Your task to perform on an android device: change your default location settings in chrome Image 0: 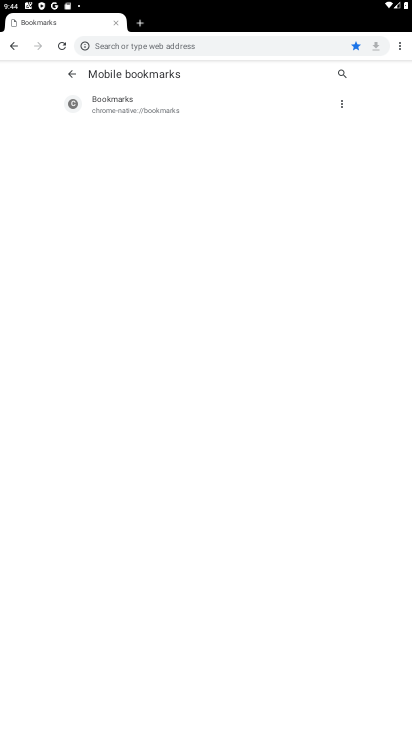
Step 0: press home button
Your task to perform on an android device: change your default location settings in chrome Image 1: 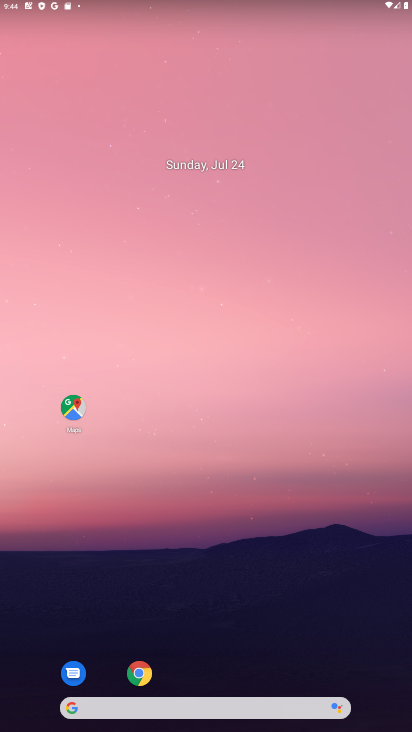
Step 1: click (141, 671)
Your task to perform on an android device: change your default location settings in chrome Image 2: 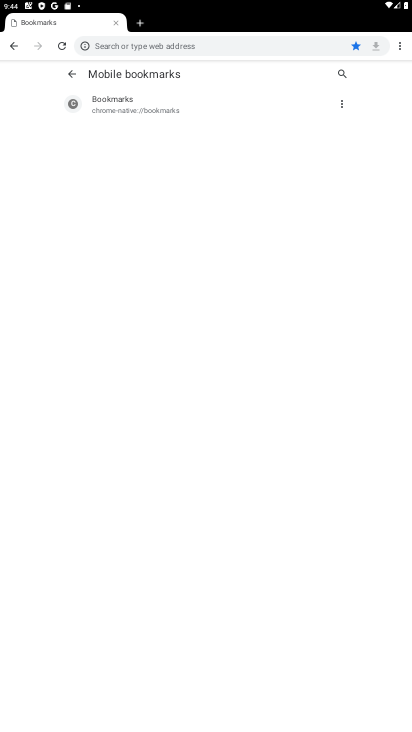
Step 2: press home button
Your task to perform on an android device: change your default location settings in chrome Image 3: 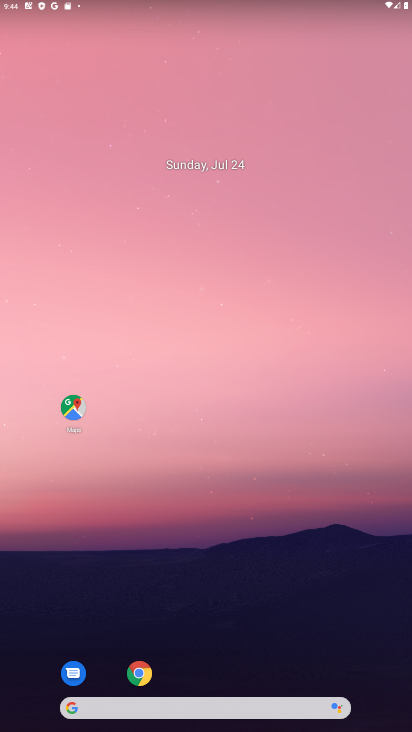
Step 3: drag from (34, 697) to (122, 204)
Your task to perform on an android device: change your default location settings in chrome Image 4: 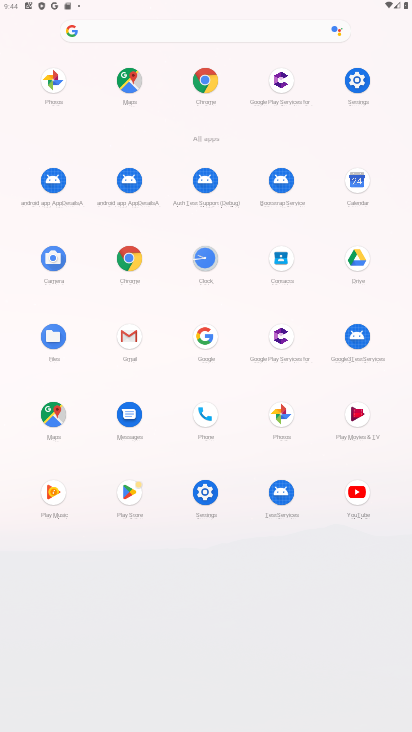
Step 4: click (211, 495)
Your task to perform on an android device: change your default location settings in chrome Image 5: 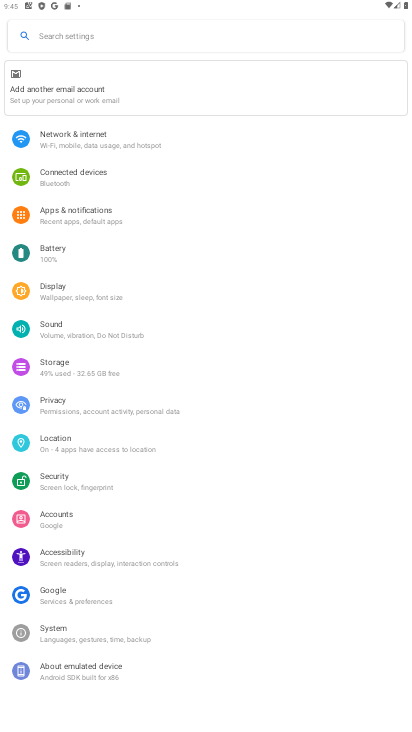
Step 5: click (89, 444)
Your task to perform on an android device: change your default location settings in chrome Image 6: 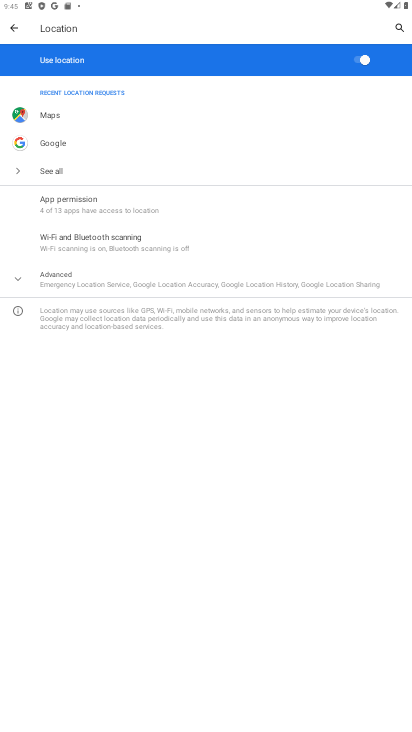
Step 6: click (75, 281)
Your task to perform on an android device: change your default location settings in chrome Image 7: 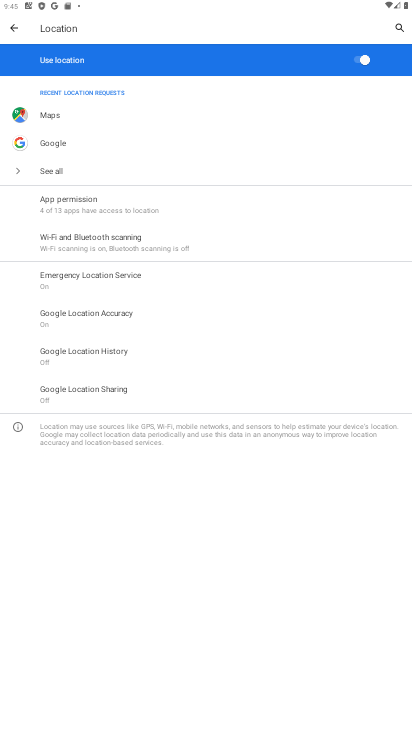
Step 7: task complete